Your task to perform on an android device: open app "Adobe Acrobat Reader: Edit PDF" (install if not already installed) Image 0: 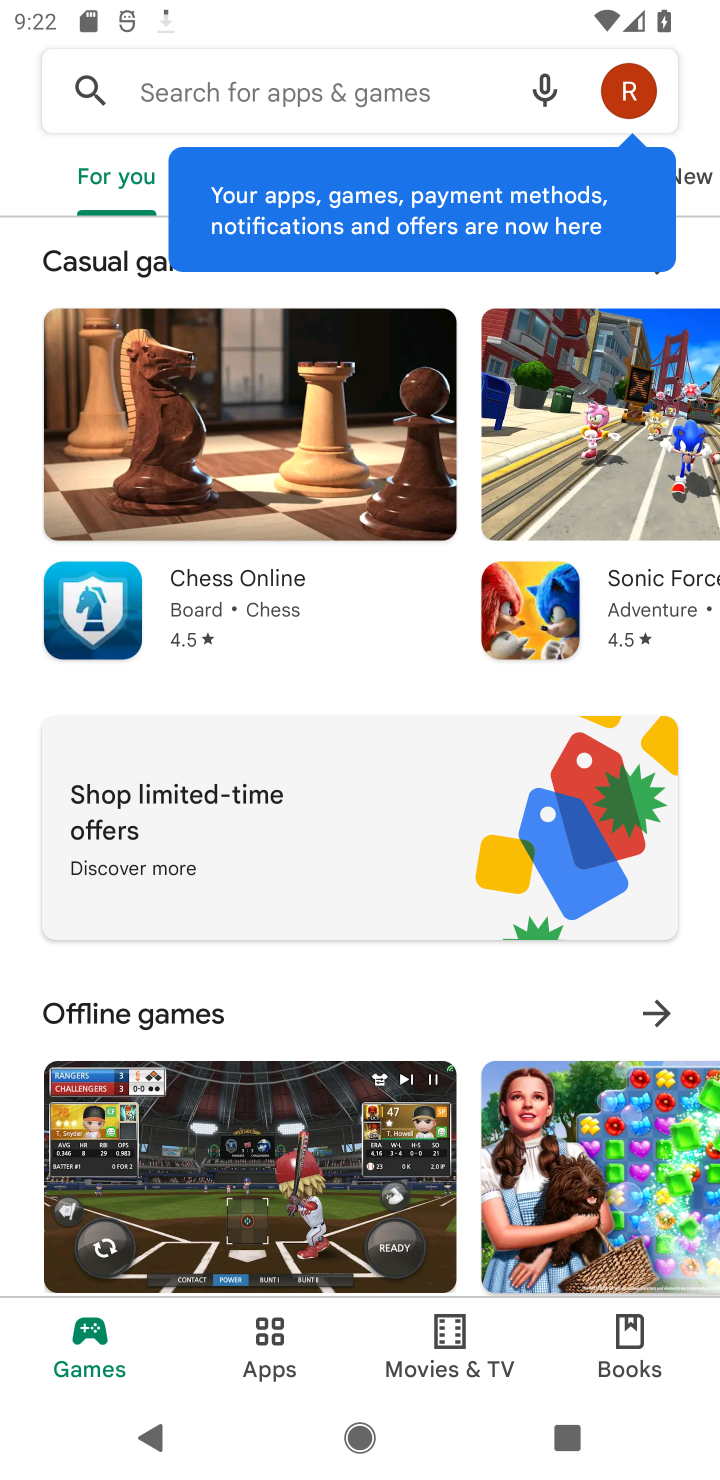
Step 0: type "Adobe Acrobat Reader: Edit PDF"
Your task to perform on an android device: open app "Adobe Acrobat Reader: Edit PDF" (install if not already installed) Image 1: 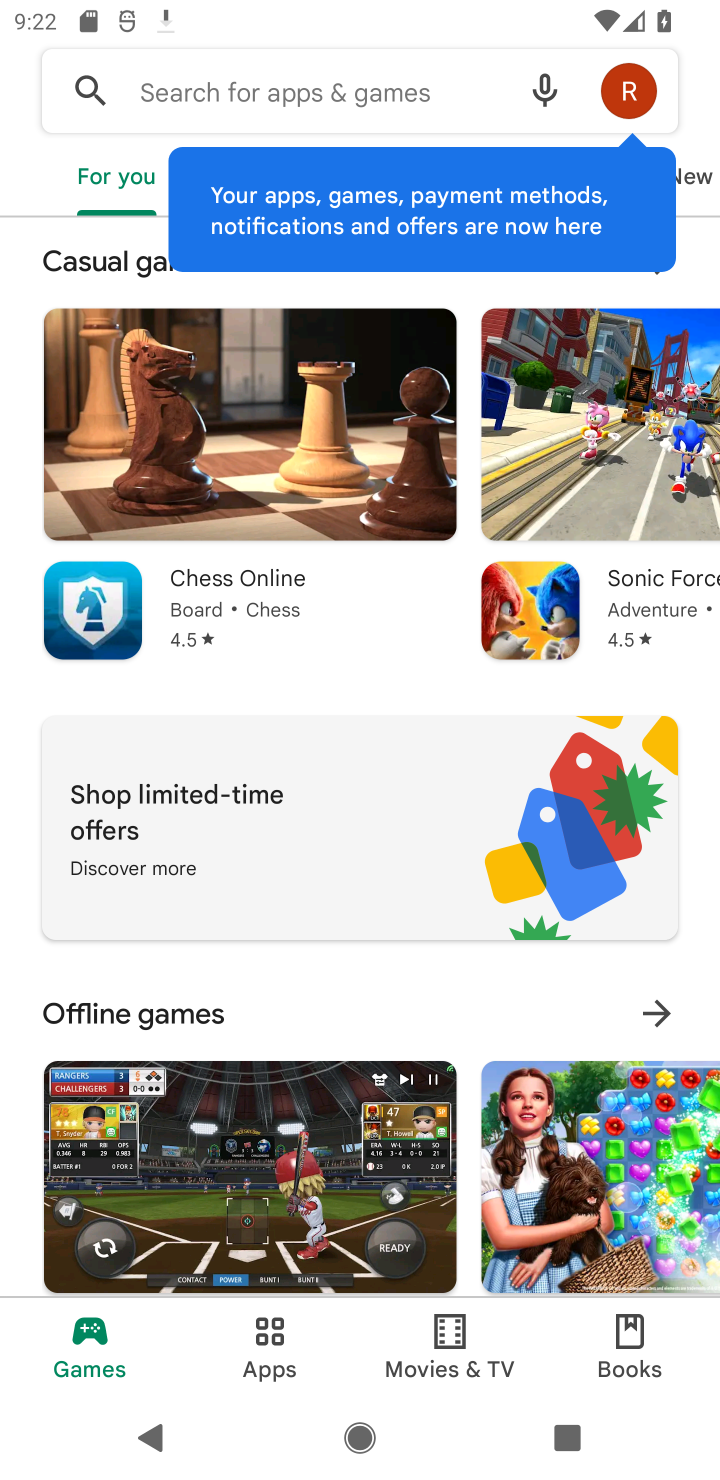
Step 1: click (231, 104)
Your task to perform on an android device: open app "Adobe Acrobat Reader: Edit PDF" (install if not already installed) Image 2: 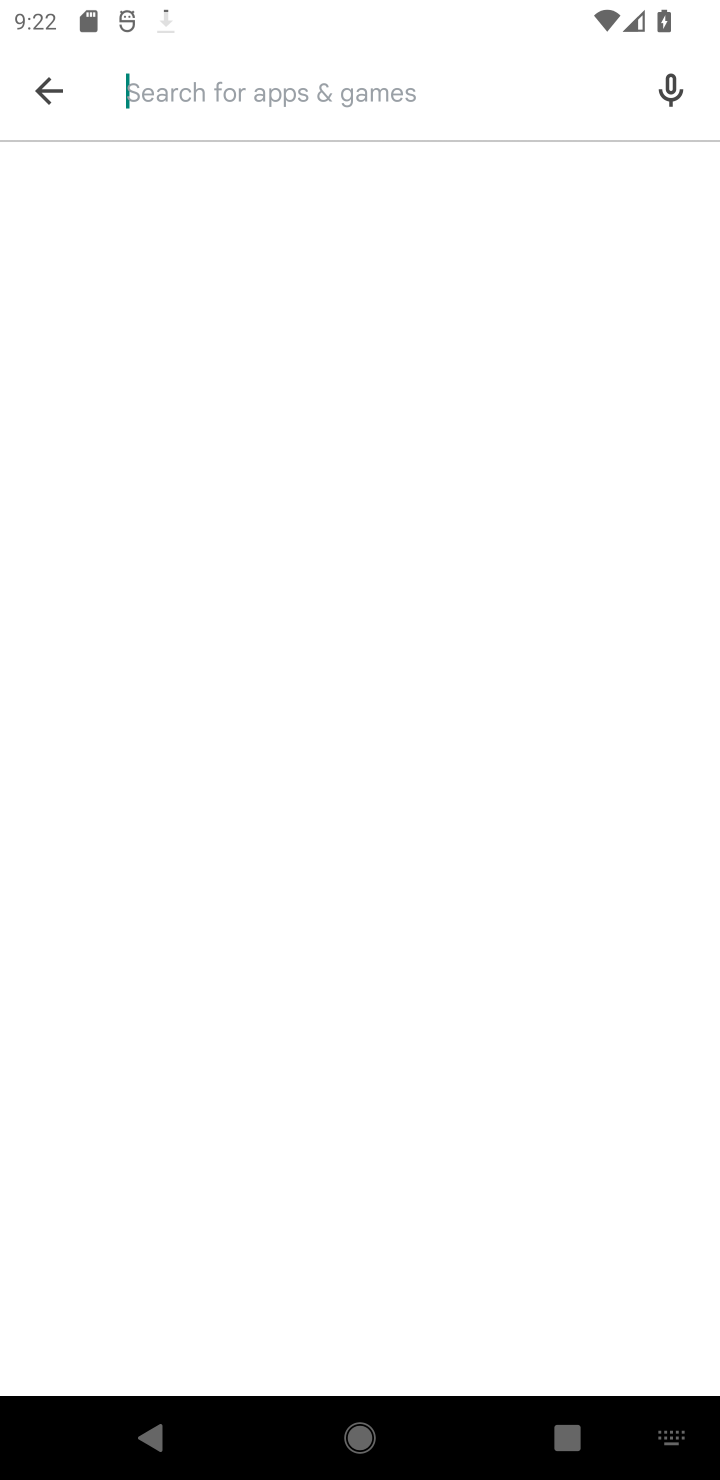
Step 2: type "Adobe Acrobat Reader: Edit PDF"
Your task to perform on an android device: open app "Adobe Acrobat Reader: Edit PDF" (install if not already installed) Image 3: 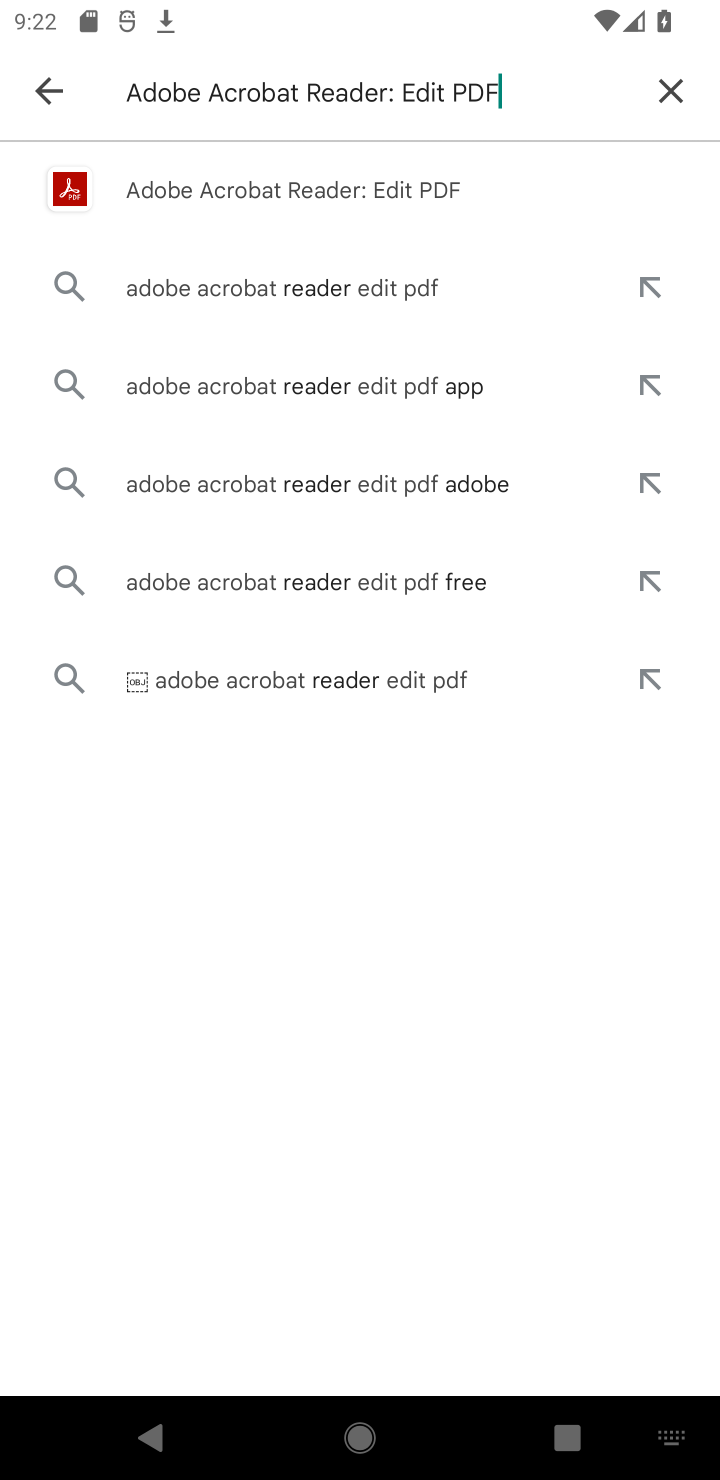
Step 3: click (330, 188)
Your task to perform on an android device: open app "Adobe Acrobat Reader: Edit PDF" (install if not already installed) Image 4: 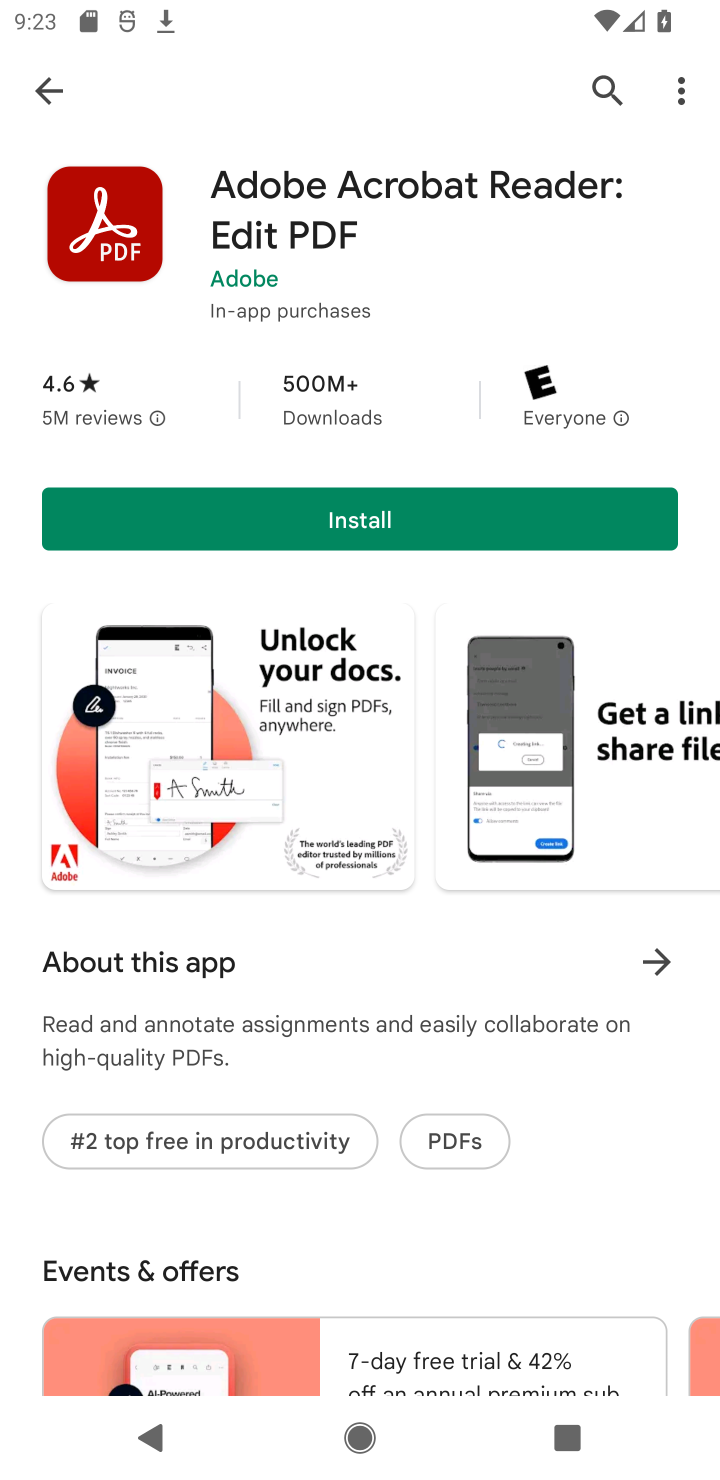
Step 4: click (371, 524)
Your task to perform on an android device: open app "Adobe Acrobat Reader: Edit PDF" (install if not already installed) Image 5: 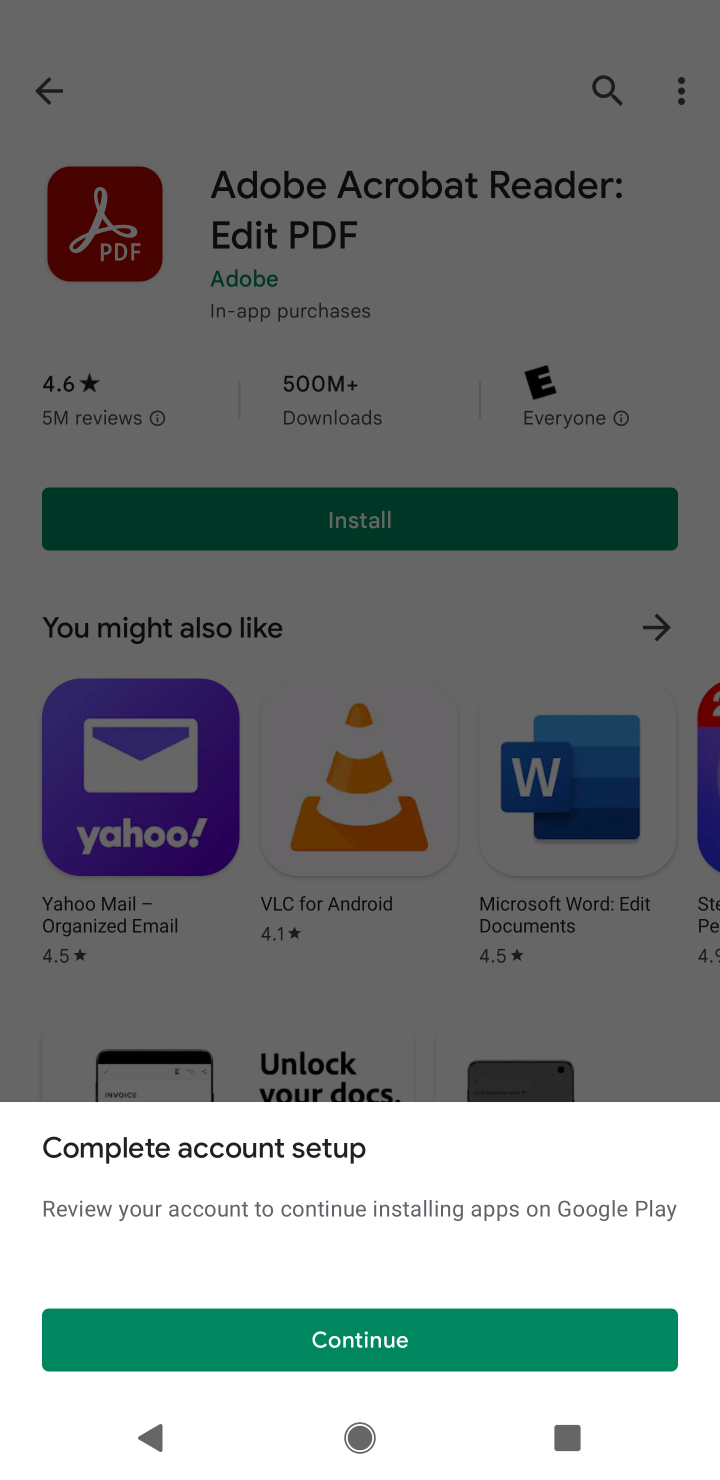
Step 5: click (400, 1345)
Your task to perform on an android device: open app "Adobe Acrobat Reader: Edit PDF" (install if not already installed) Image 6: 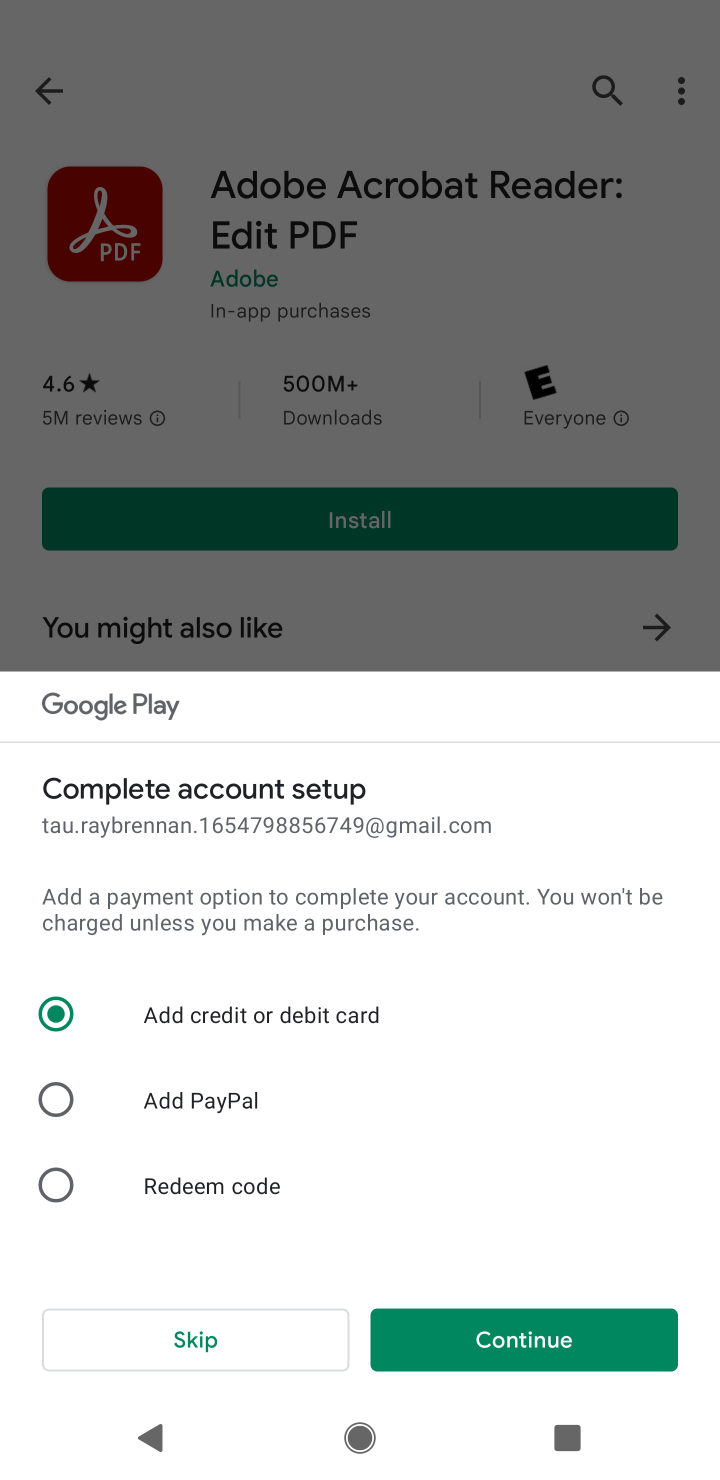
Step 6: click (211, 1358)
Your task to perform on an android device: open app "Adobe Acrobat Reader: Edit PDF" (install if not already installed) Image 7: 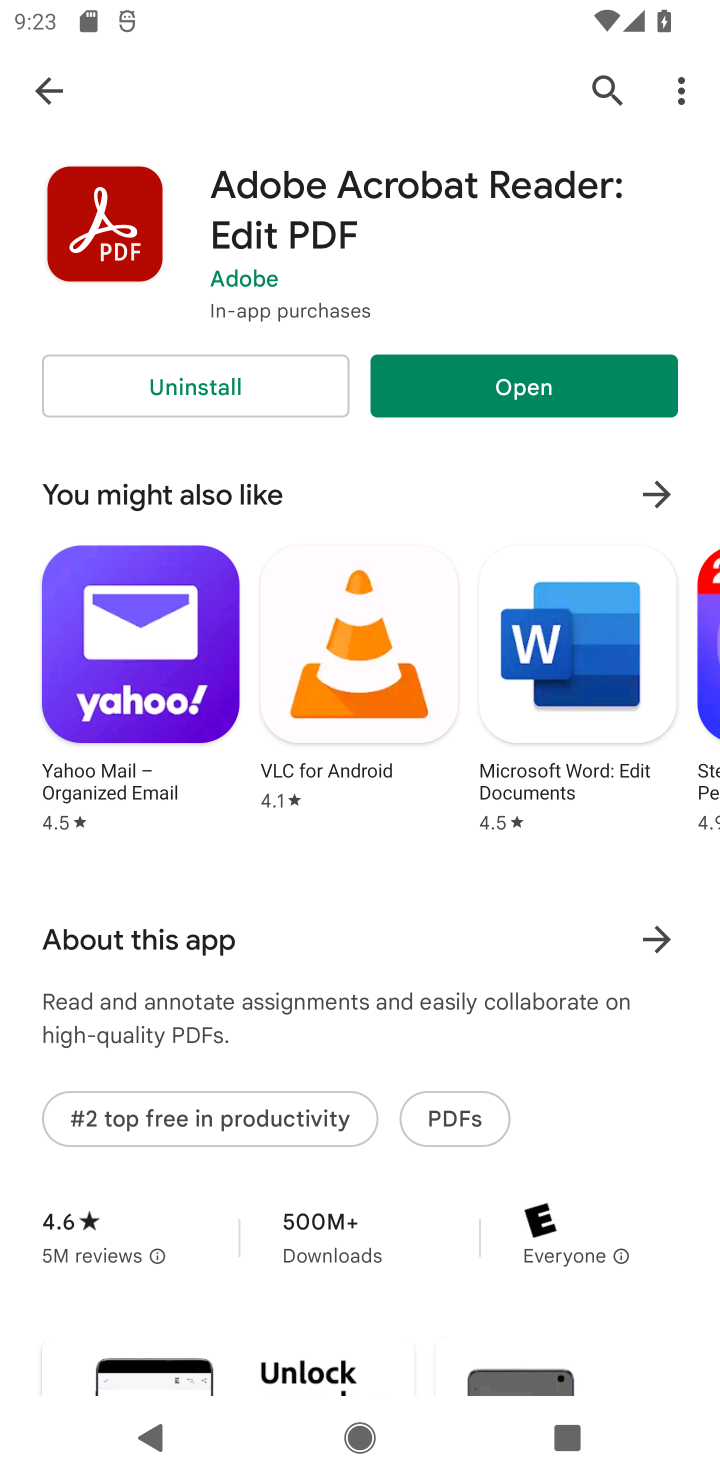
Step 7: click (457, 404)
Your task to perform on an android device: open app "Adobe Acrobat Reader: Edit PDF" (install if not already installed) Image 8: 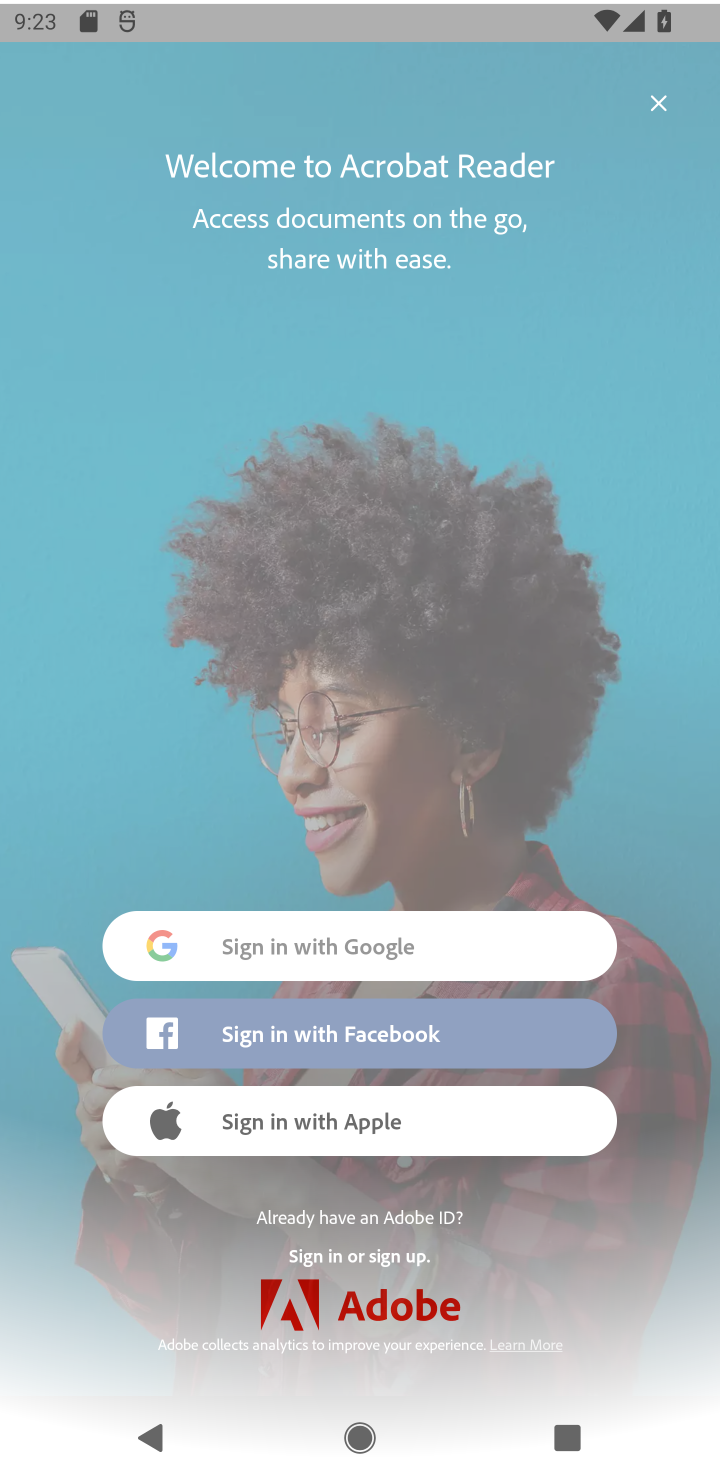
Step 8: task complete